Your task to perform on an android device: check google app version Image 0: 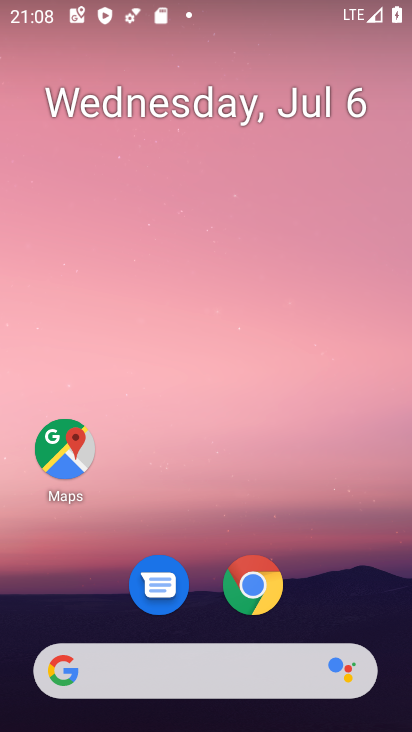
Step 0: click (191, 679)
Your task to perform on an android device: check google app version Image 1: 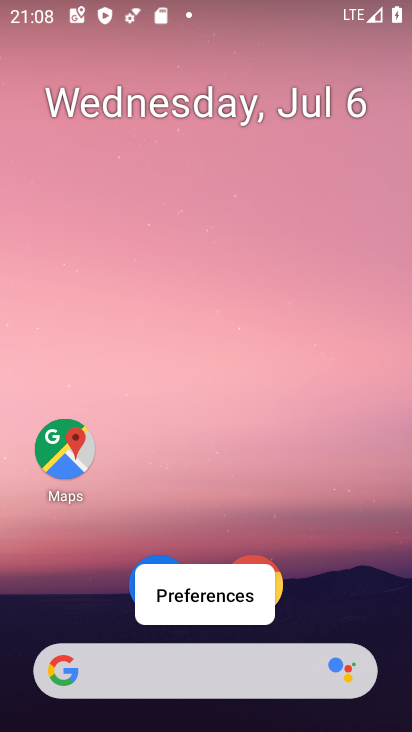
Step 1: click (160, 665)
Your task to perform on an android device: check google app version Image 2: 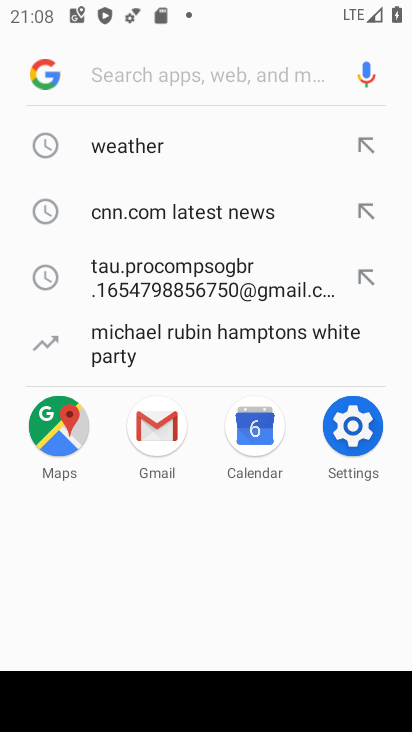
Step 2: click (42, 79)
Your task to perform on an android device: check google app version Image 3: 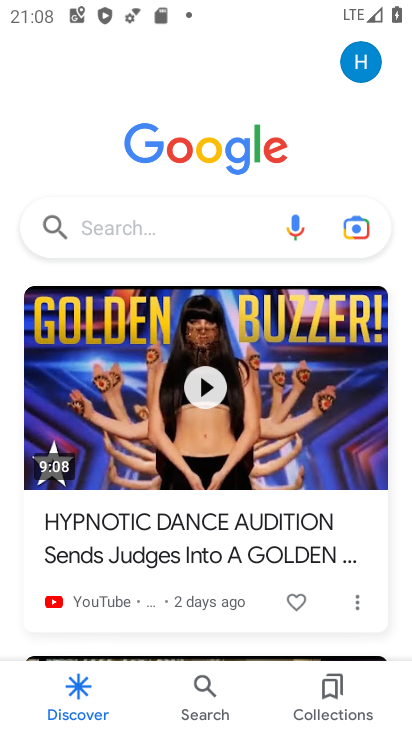
Step 3: click (365, 68)
Your task to perform on an android device: check google app version Image 4: 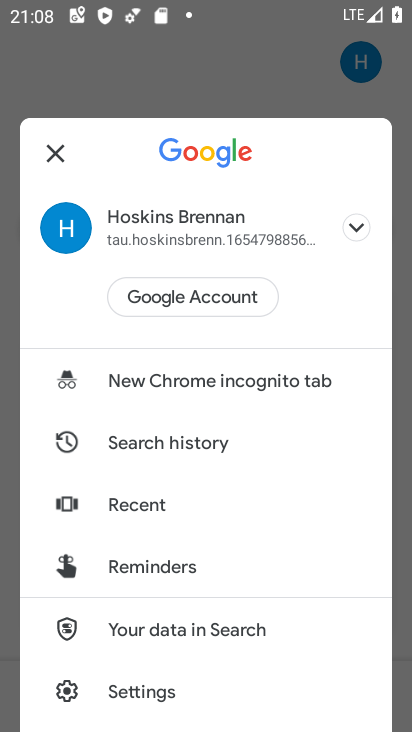
Step 4: click (168, 684)
Your task to perform on an android device: check google app version Image 5: 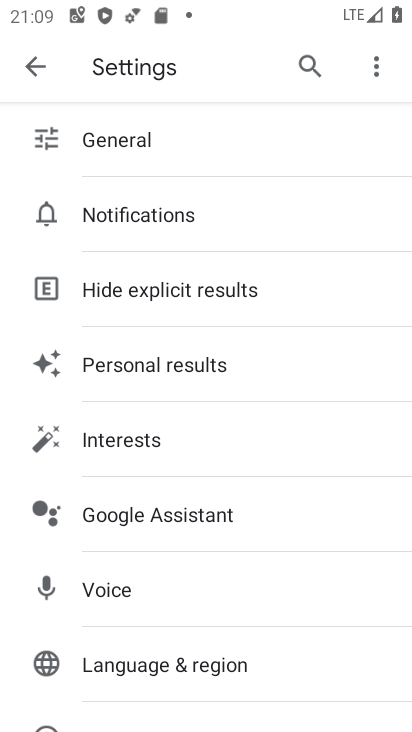
Step 5: drag from (257, 544) to (268, 161)
Your task to perform on an android device: check google app version Image 6: 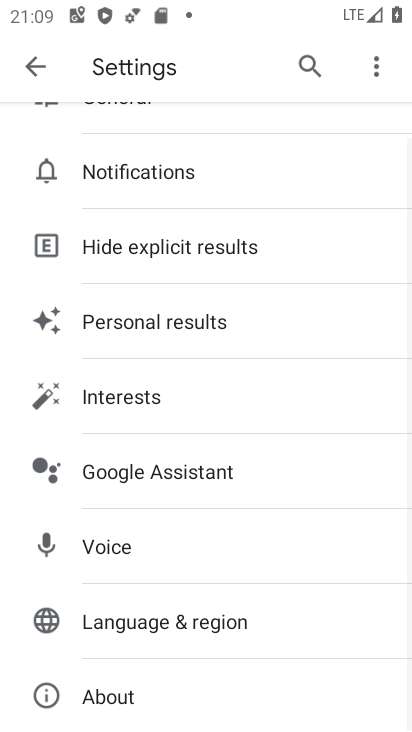
Step 6: click (106, 696)
Your task to perform on an android device: check google app version Image 7: 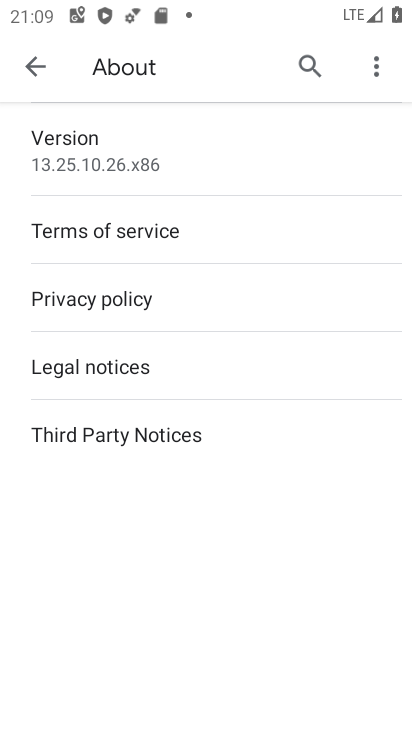
Step 7: task complete